Your task to perform on an android device: turn off wifi Image 0: 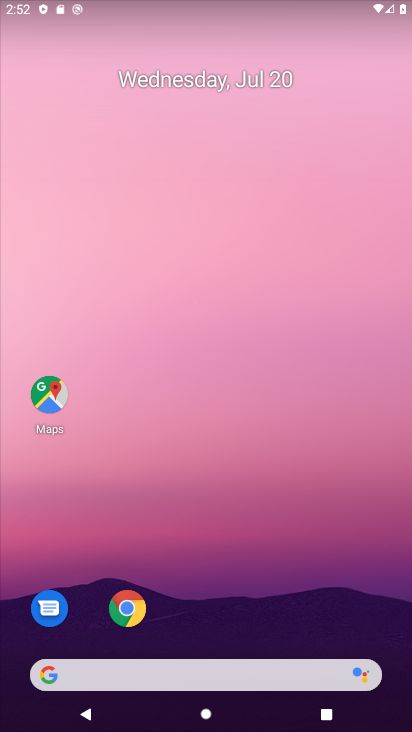
Step 0: drag from (332, 551) to (225, 43)
Your task to perform on an android device: turn off wifi Image 1: 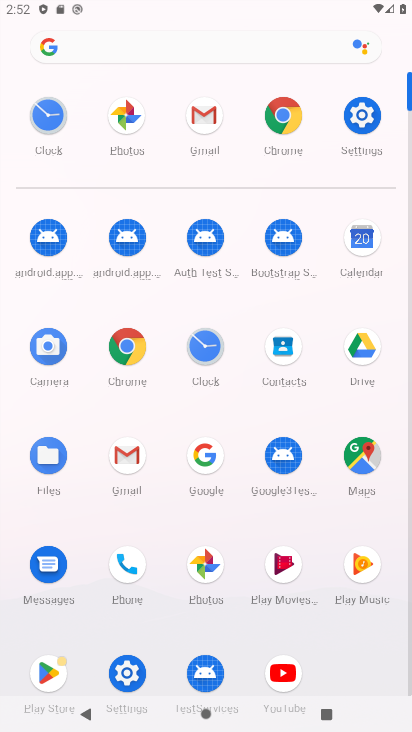
Step 1: click (362, 116)
Your task to perform on an android device: turn off wifi Image 2: 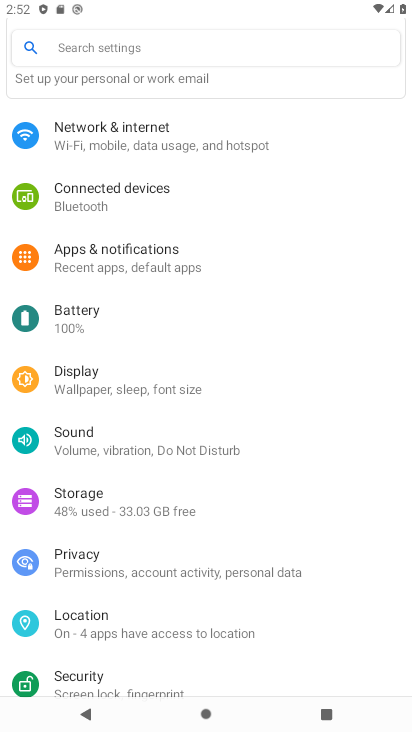
Step 2: click (130, 145)
Your task to perform on an android device: turn off wifi Image 3: 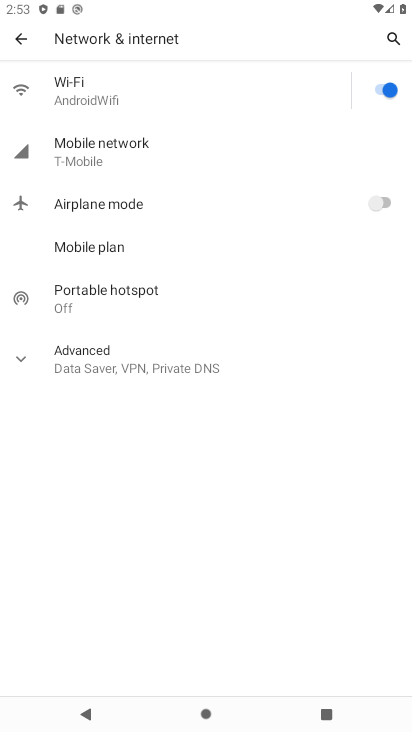
Step 3: click (384, 91)
Your task to perform on an android device: turn off wifi Image 4: 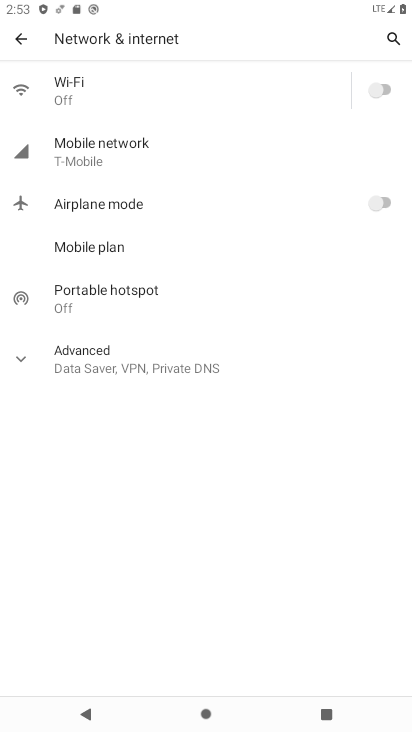
Step 4: task complete